Your task to perform on an android device: turn on bluetooth scan Image 0: 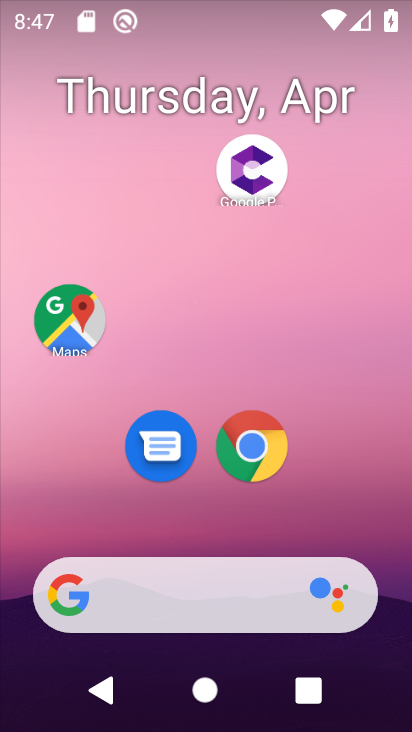
Step 0: drag from (206, 469) to (236, 174)
Your task to perform on an android device: turn on bluetooth scan Image 1: 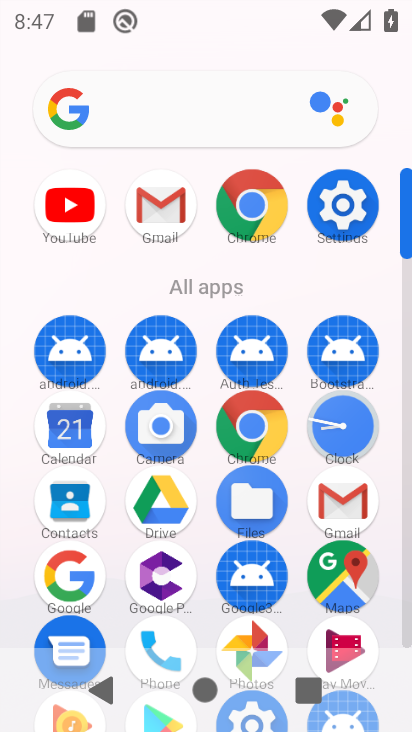
Step 1: click (349, 207)
Your task to perform on an android device: turn on bluetooth scan Image 2: 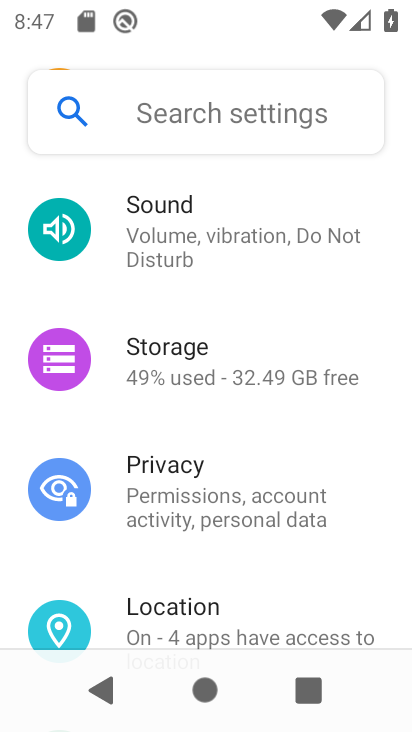
Step 2: drag from (255, 201) to (230, 654)
Your task to perform on an android device: turn on bluetooth scan Image 3: 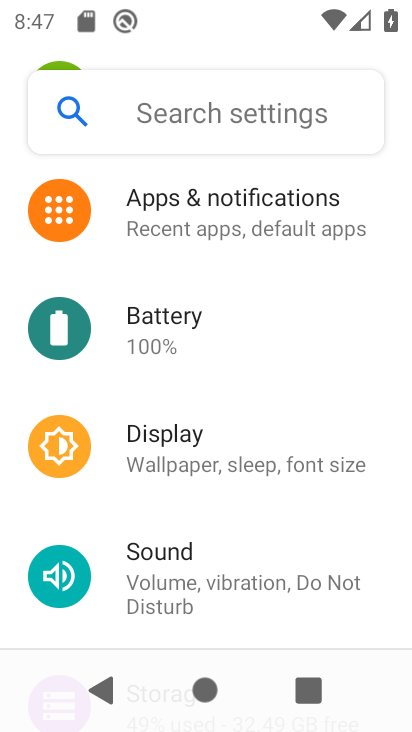
Step 3: drag from (224, 338) to (207, 582)
Your task to perform on an android device: turn on bluetooth scan Image 4: 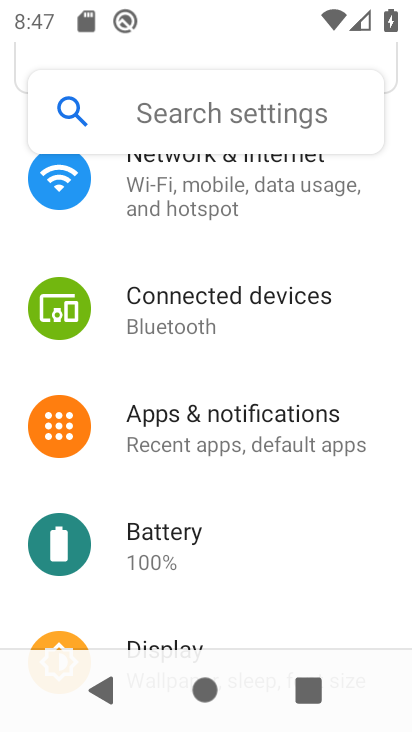
Step 4: click (209, 311)
Your task to perform on an android device: turn on bluetooth scan Image 5: 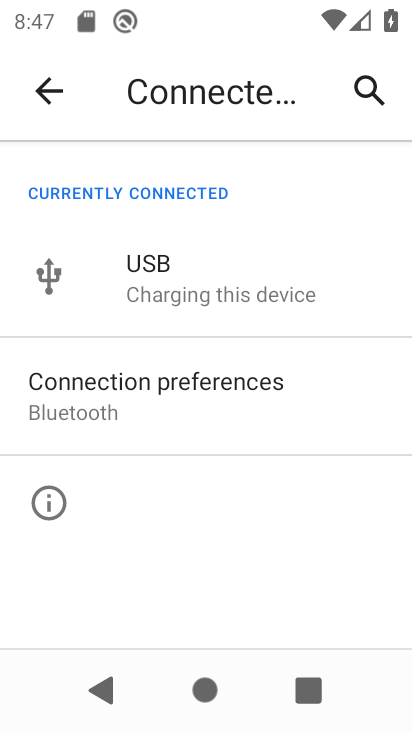
Step 5: click (161, 394)
Your task to perform on an android device: turn on bluetooth scan Image 6: 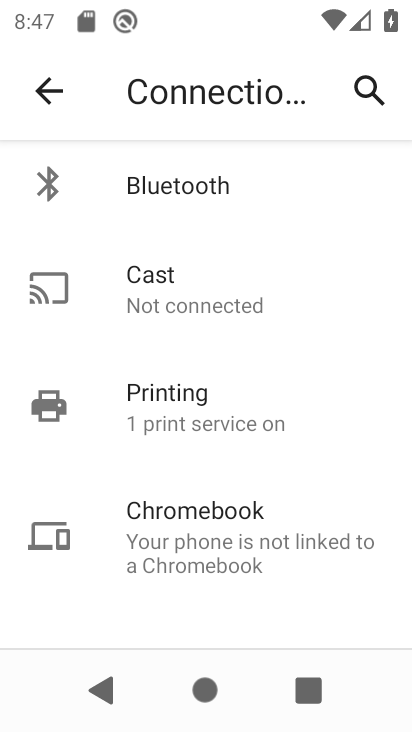
Step 6: click (181, 201)
Your task to perform on an android device: turn on bluetooth scan Image 7: 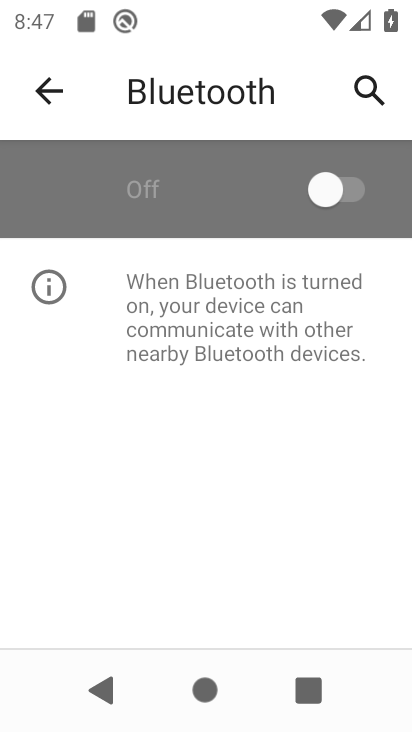
Step 7: click (348, 193)
Your task to perform on an android device: turn on bluetooth scan Image 8: 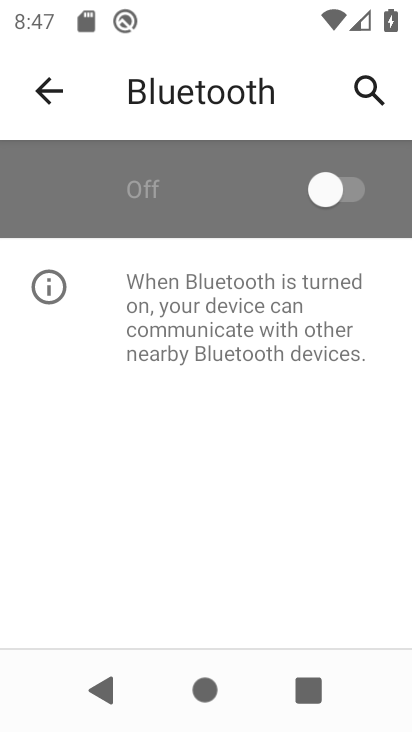
Step 8: click (348, 193)
Your task to perform on an android device: turn on bluetooth scan Image 9: 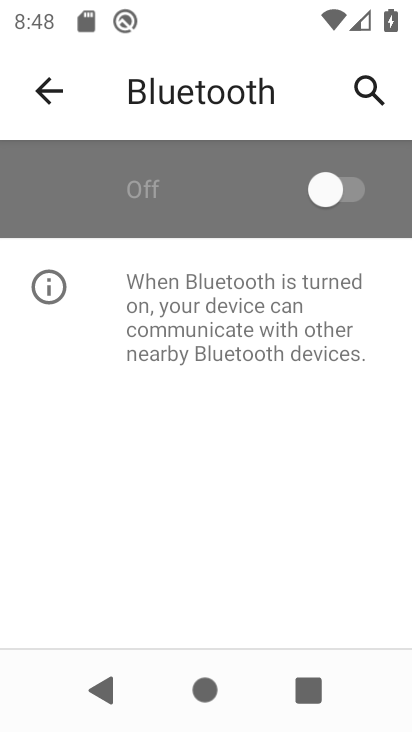
Step 9: task complete